Your task to perform on an android device: all mails in gmail Image 0: 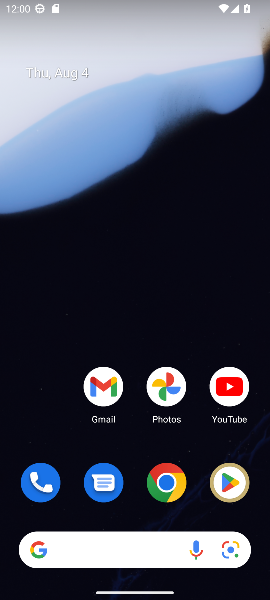
Step 0: click (117, 385)
Your task to perform on an android device: all mails in gmail Image 1: 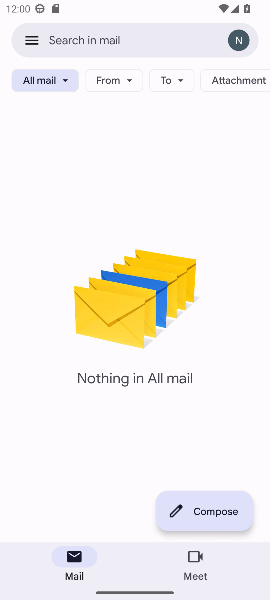
Step 1: click (23, 41)
Your task to perform on an android device: all mails in gmail Image 2: 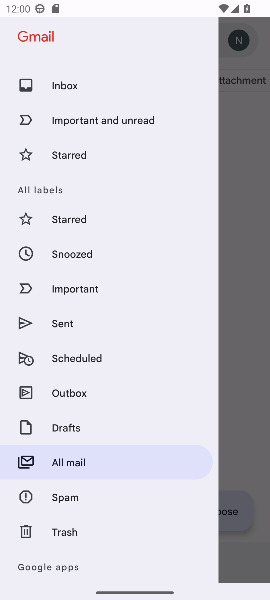
Step 2: click (109, 463)
Your task to perform on an android device: all mails in gmail Image 3: 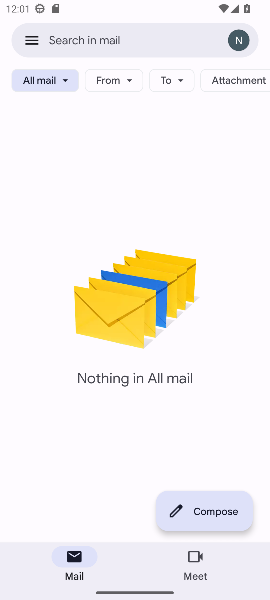
Step 3: task complete